Your task to perform on an android device: delete the emails in spam in the gmail app Image 0: 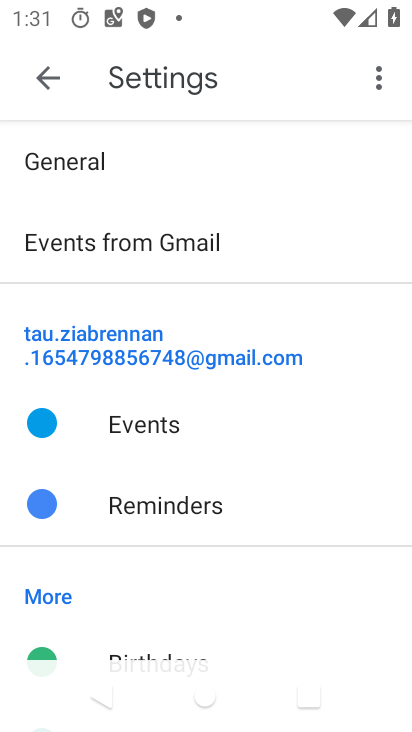
Step 0: press home button
Your task to perform on an android device: delete the emails in spam in the gmail app Image 1: 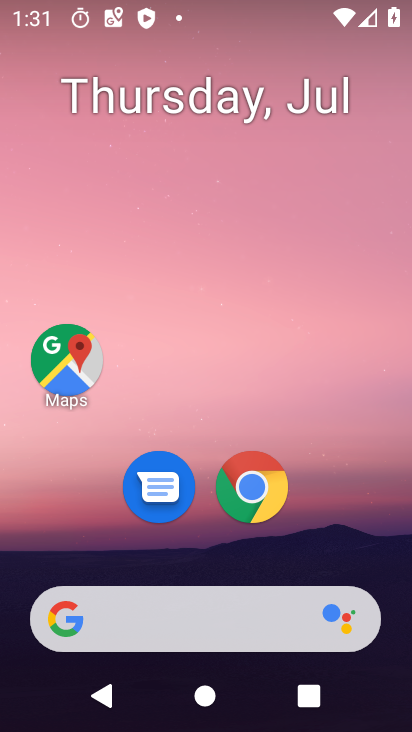
Step 1: drag from (212, 596) to (251, 216)
Your task to perform on an android device: delete the emails in spam in the gmail app Image 2: 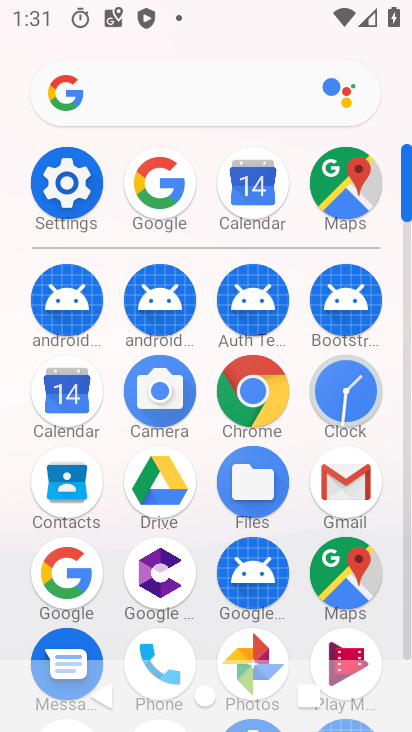
Step 2: click (352, 500)
Your task to perform on an android device: delete the emails in spam in the gmail app Image 3: 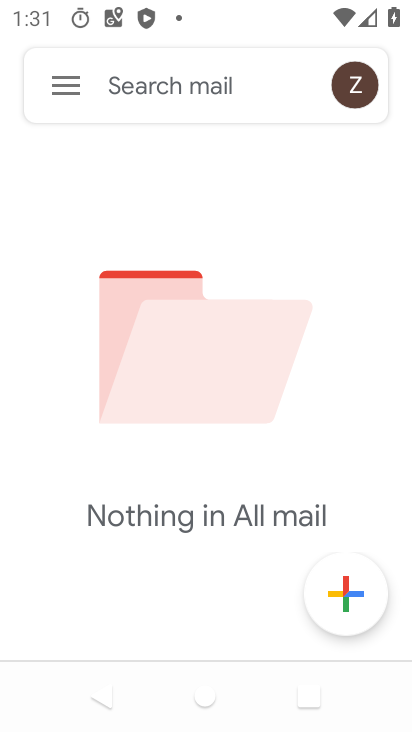
Step 3: click (62, 101)
Your task to perform on an android device: delete the emails in spam in the gmail app Image 4: 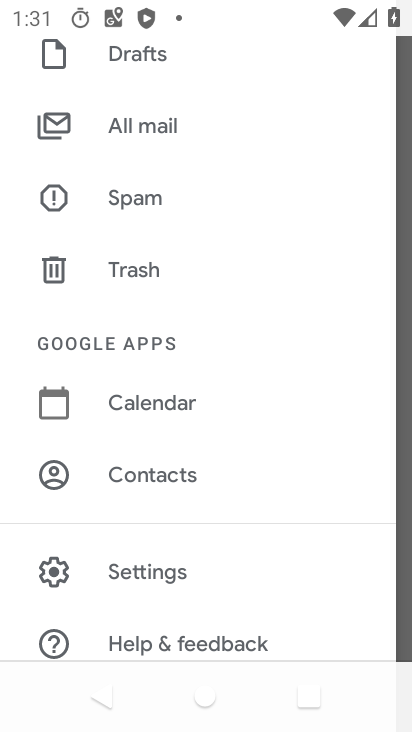
Step 4: click (148, 200)
Your task to perform on an android device: delete the emails in spam in the gmail app Image 5: 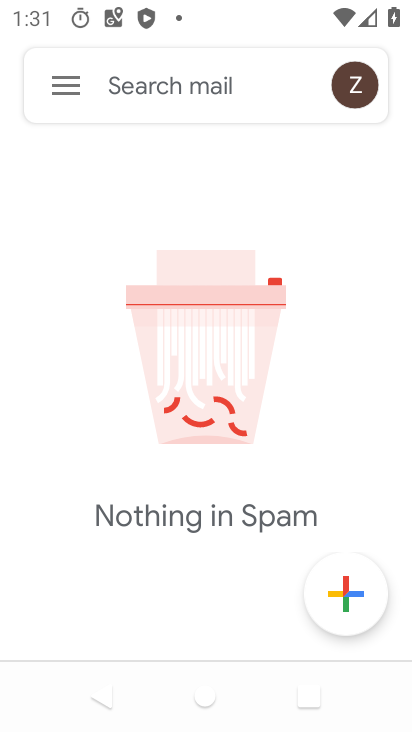
Step 5: task complete